Your task to perform on an android device: visit the assistant section in the google photos Image 0: 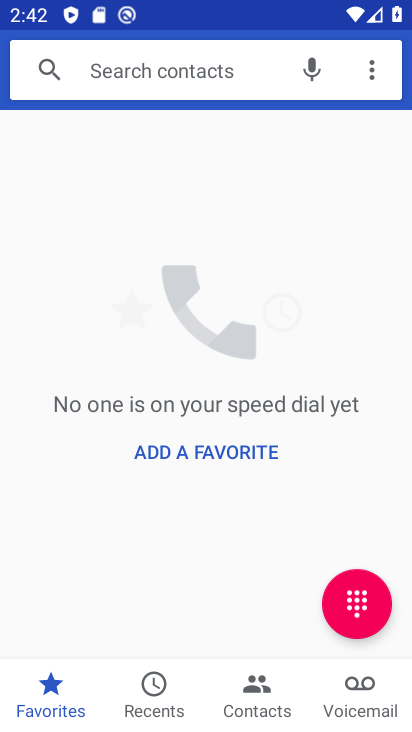
Step 0: press home button
Your task to perform on an android device: visit the assistant section in the google photos Image 1: 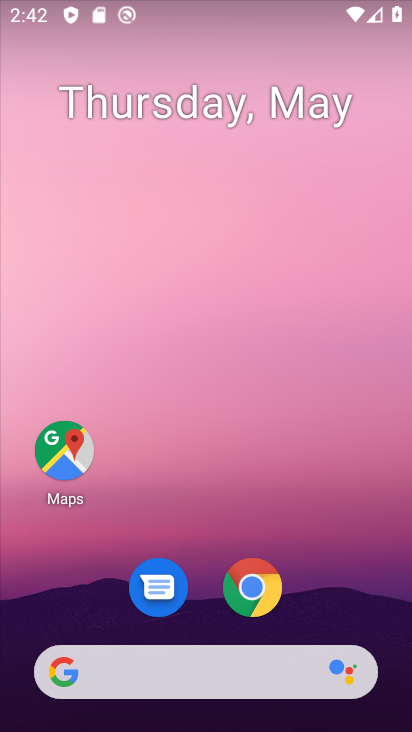
Step 1: drag from (354, 663) to (313, 132)
Your task to perform on an android device: visit the assistant section in the google photos Image 2: 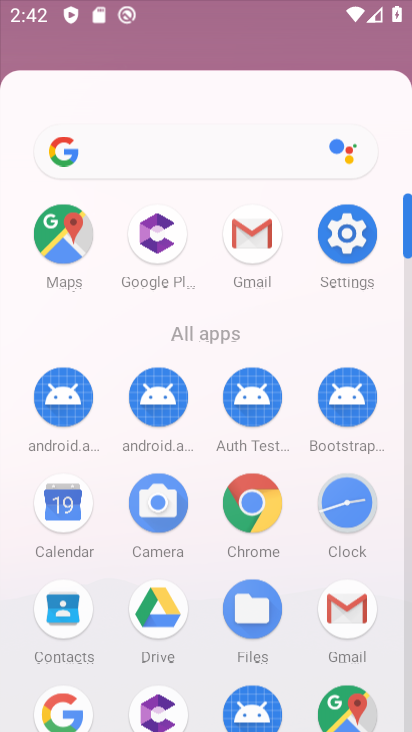
Step 2: click (313, 114)
Your task to perform on an android device: visit the assistant section in the google photos Image 3: 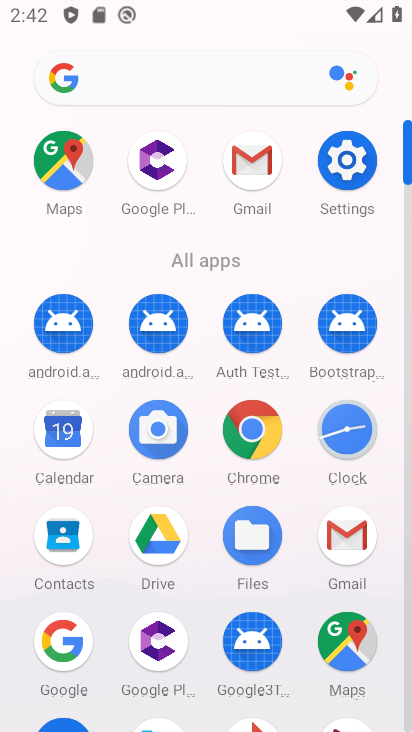
Step 3: drag from (208, 599) to (207, 470)
Your task to perform on an android device: visit the assistant section in the google photos Image 4: 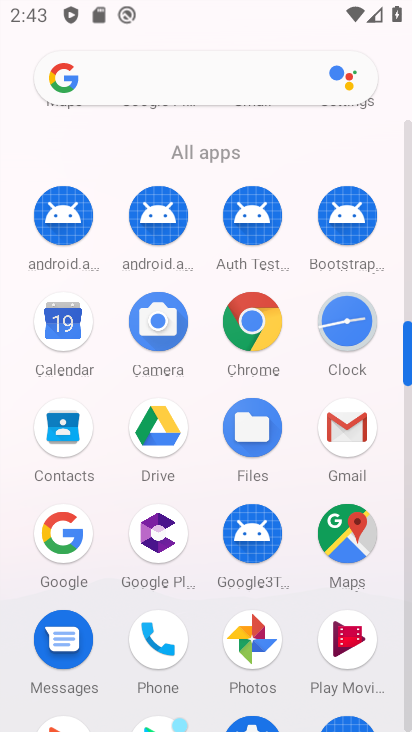
Step 4: click (260, 653)
Your task to perform on an android device: visit the assistant section in the google photos Image 5: 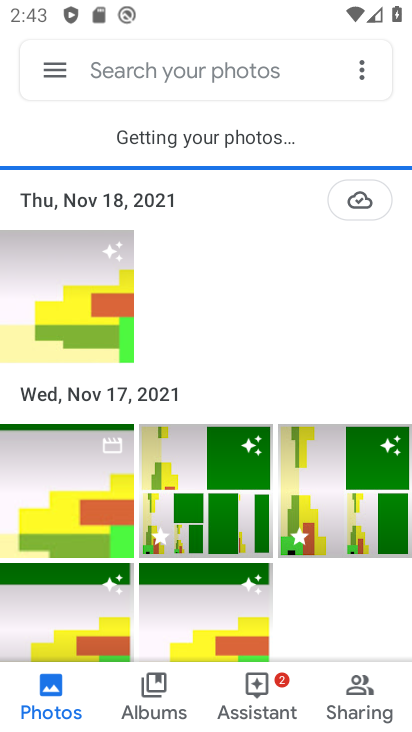
Step 5: click (276, 726)
Your task to perform on an android device: visit the assistant section in the google photos Image 6: 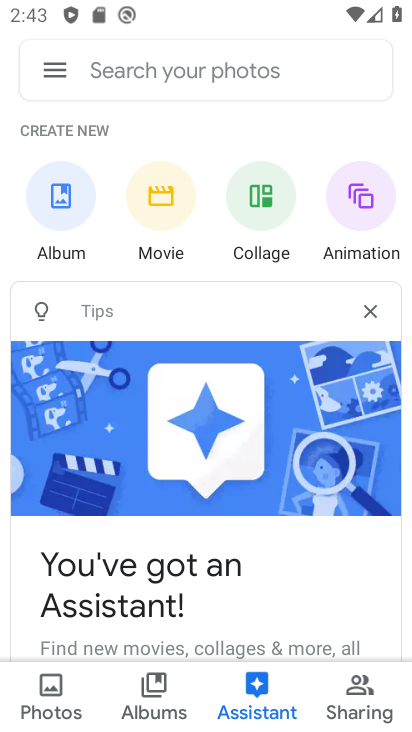
Step 6: task complete